Your task to perform on an android device: star an email in the gmail app Image 0: 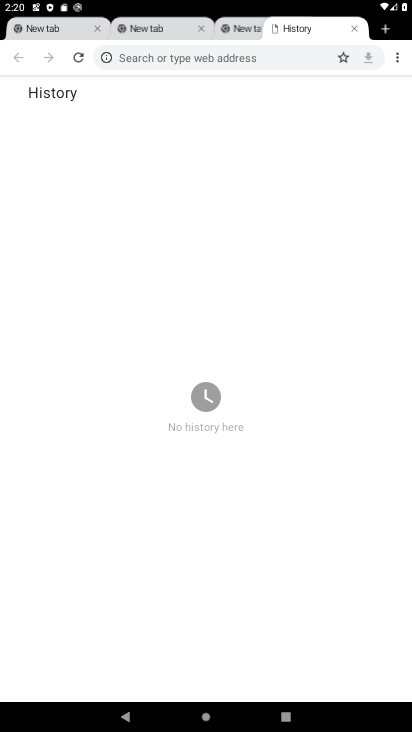
Step 0: press home button
Your task to perform on an android device: star an email in the gmail app Image 1: 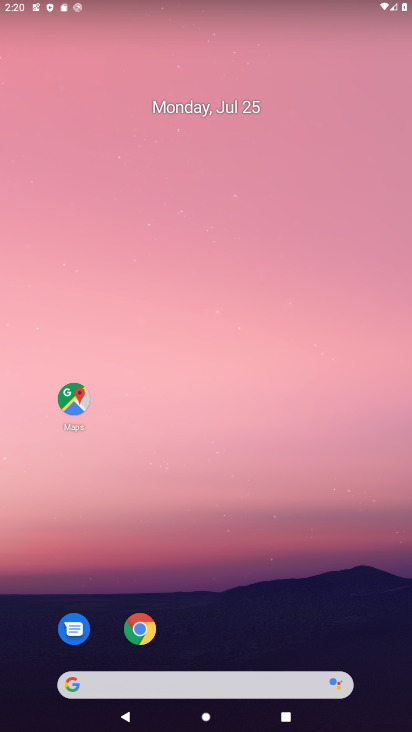
Step 1: drag from (45, 687) to (265, 180)
Your task to perform on an android device: star an email in the gmail app Image 2: 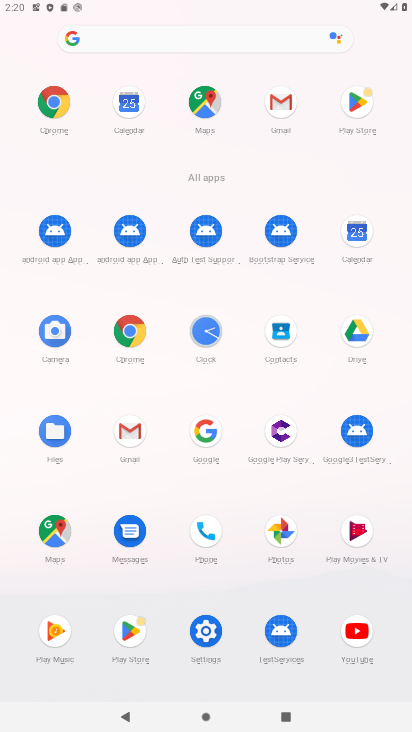
Step 2: click (127, 436)
Your task to perform on an android device: star an email in the gmail app Image 3: 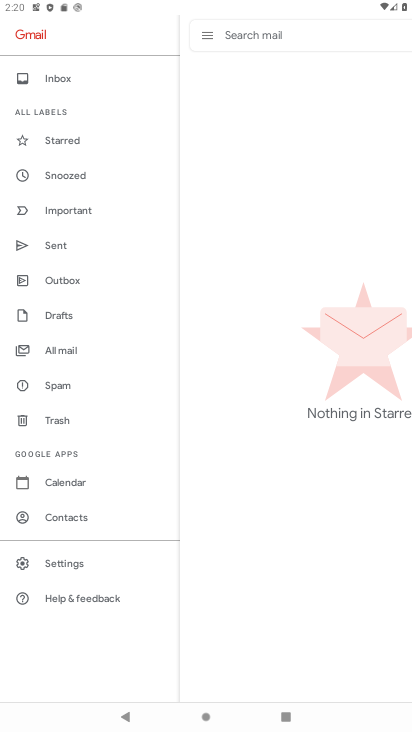
Step 3: click (74, 145)
Your task to perform on an android device: star an email in the gmail app Image 4: 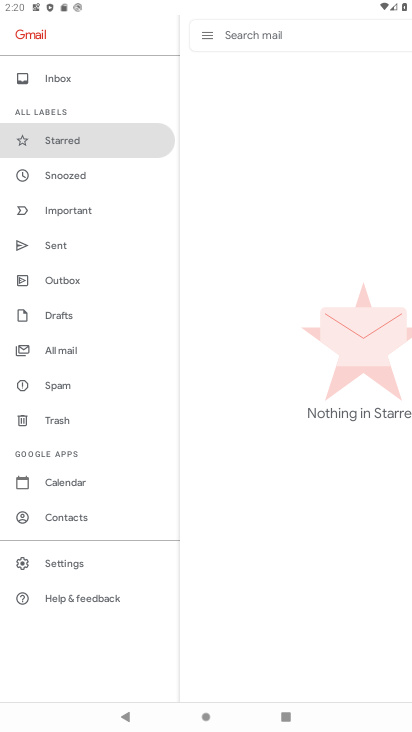
Step 4: task complete